Your task to perform on an android device: open app "Truecaller" (install if not already installed) and go to login screen Image 0: 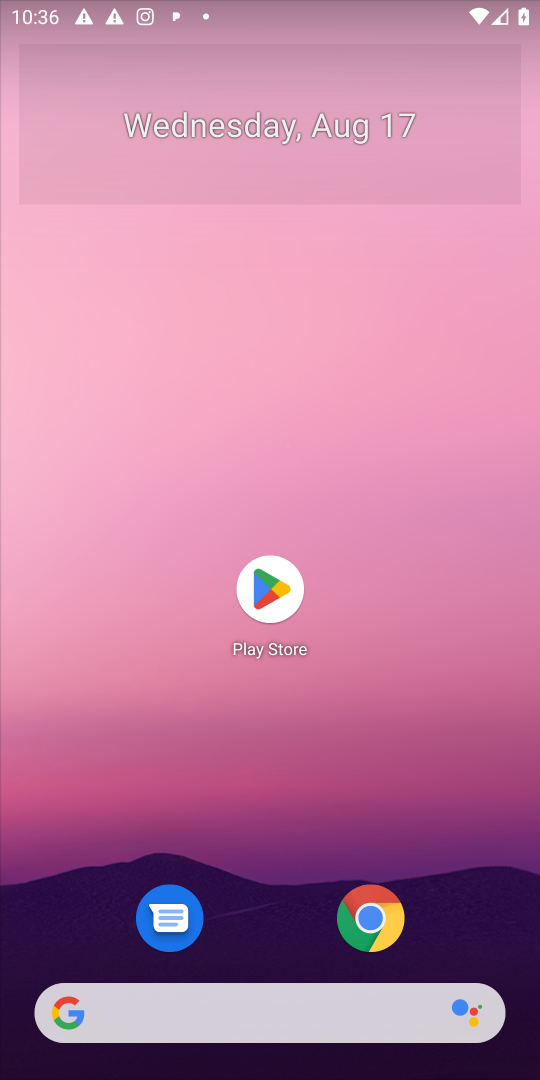
Step 0: click (275, 592)
Your task to perform on an android device: open app "Truecaller" (install if not already installed) and go to login screen Image 1: 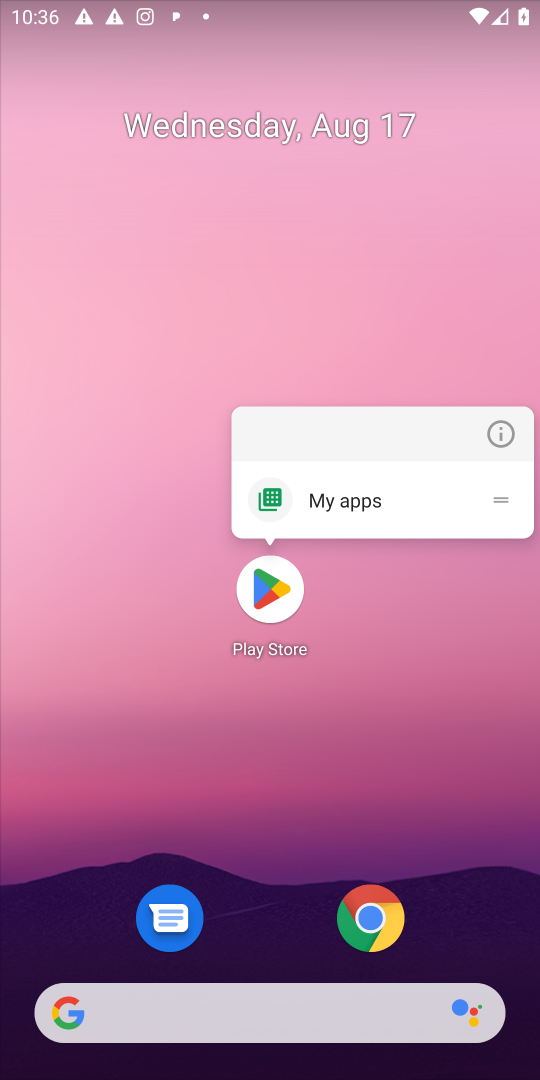
Step 1: click (275, 580)
Your task to perform on an android device: open app "Truecaller" (install if not already installed) and go to login screen Image 2: 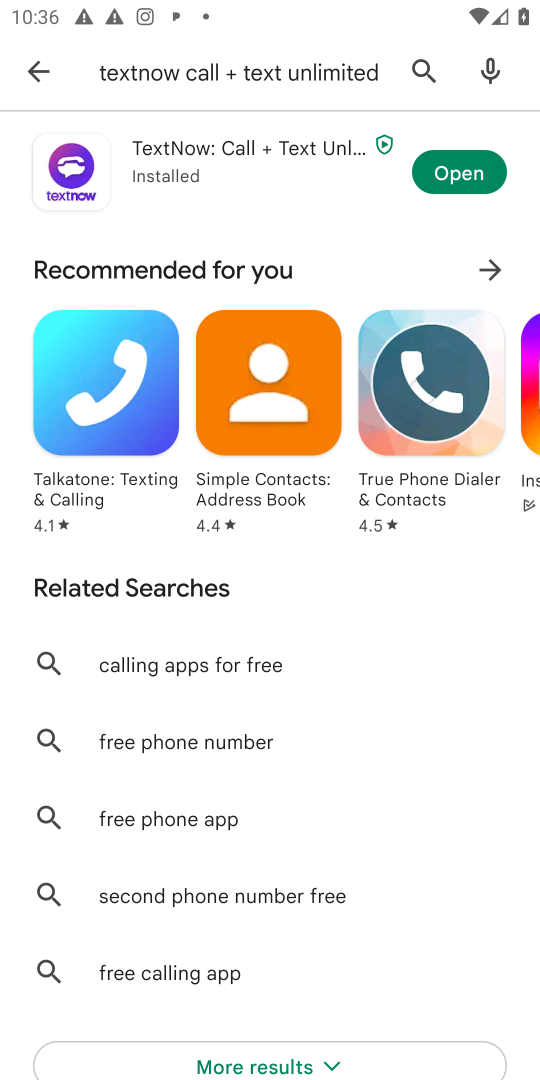
Step 2: click (414, 62)
Your task to perform on an android device: open app "Truecaller" (install if not already installed) and go to login screen Image 3: 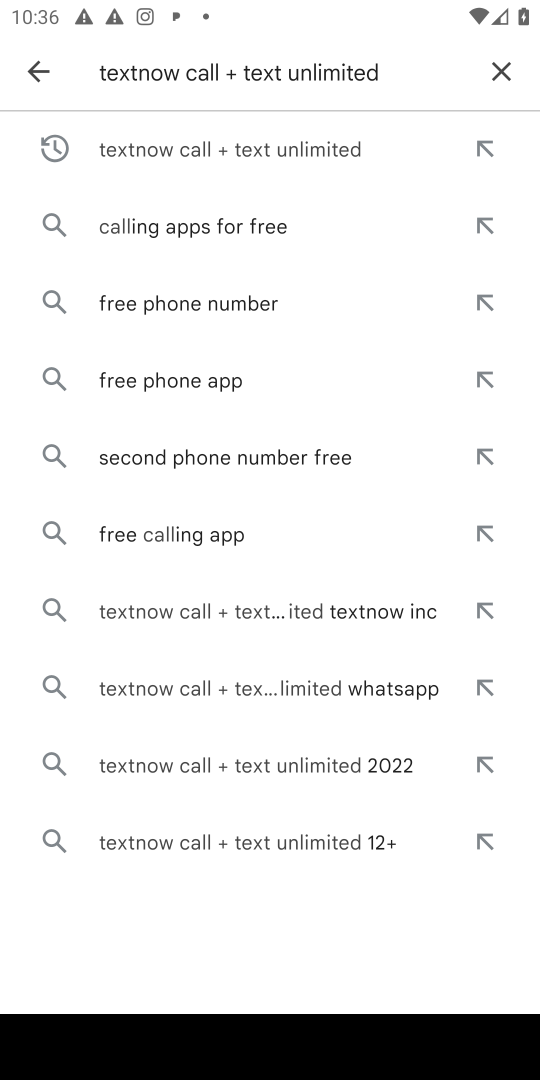
Step 3: click (506, 63)
Your task to perform on an android device: open app "Truecaller" (install if not already installed) and go to login screen Image 4: 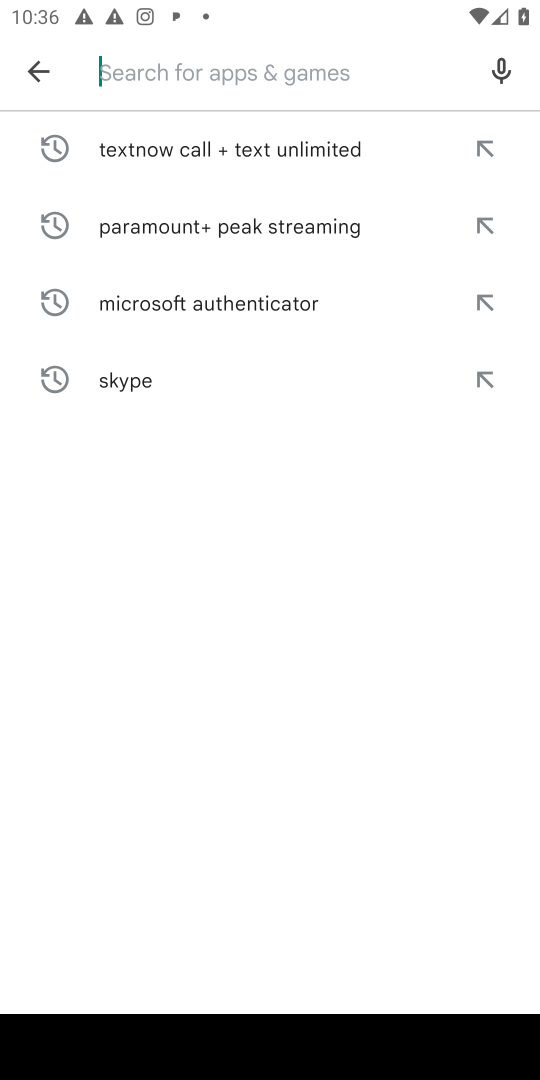
Step 4: type "Truecaller"
Your task to perform on an android device: open app "Truecaller" (install if not already installed) and go to login screen Image 5: 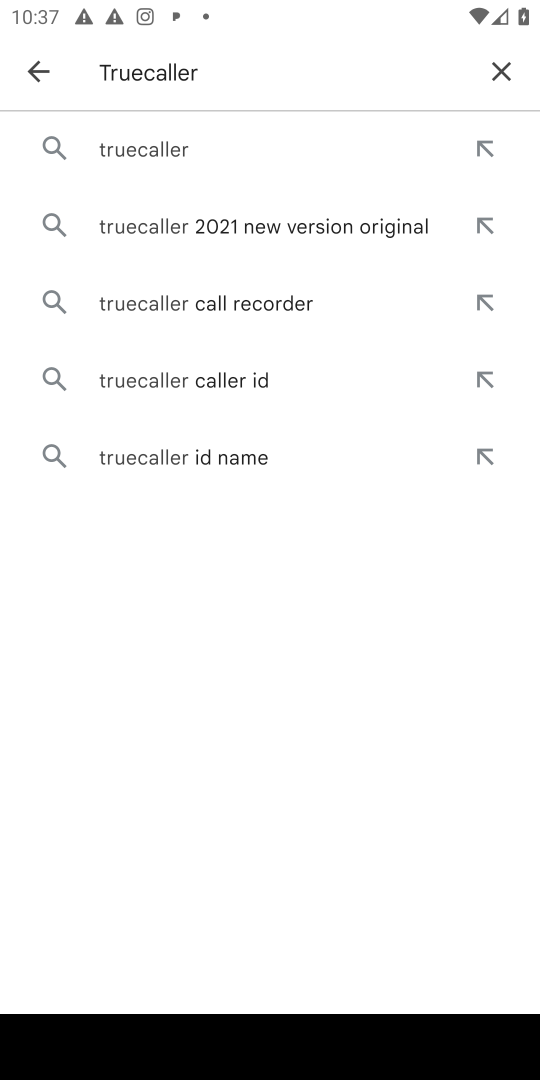
Step 5: click (169, 149)
Your task to perform on an android device: open app "Truecaller" (install if not already installed) and go to login screen Image 6: 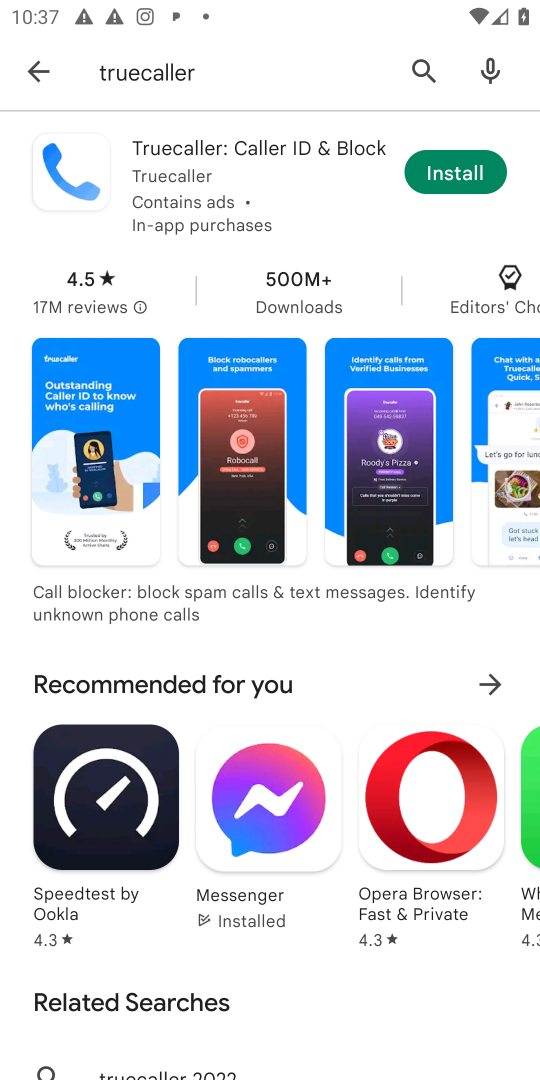
Step 6: click (466, 168)
Your task to perform on an android device: open app "Truecaller" (install if not already installed) and go to login screen Image 7: 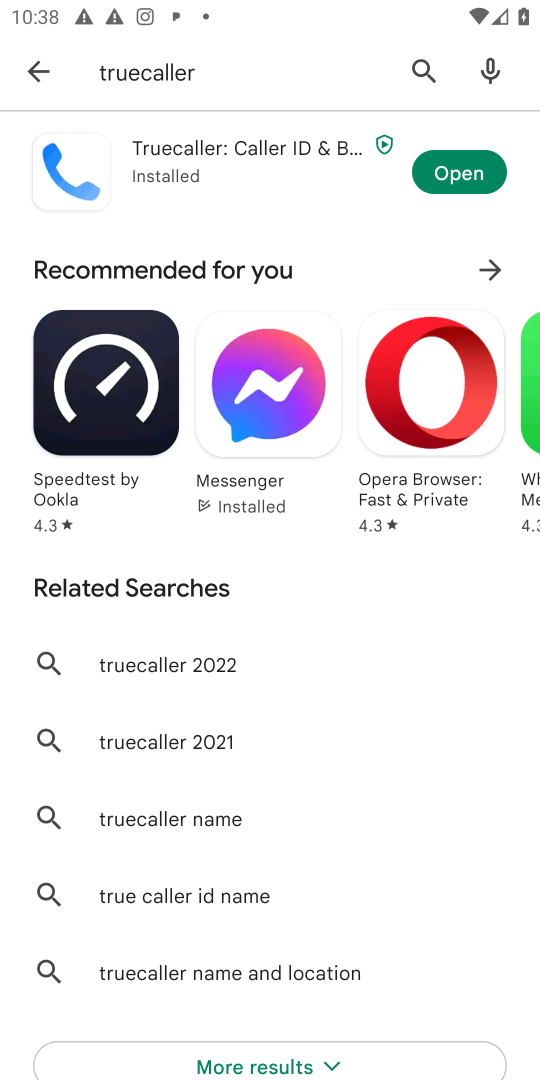
Step 7: click (456, 174)
Your task to perform on an android device: open app "Truecaller" (install if not already installed) and go to login screen Image 8: 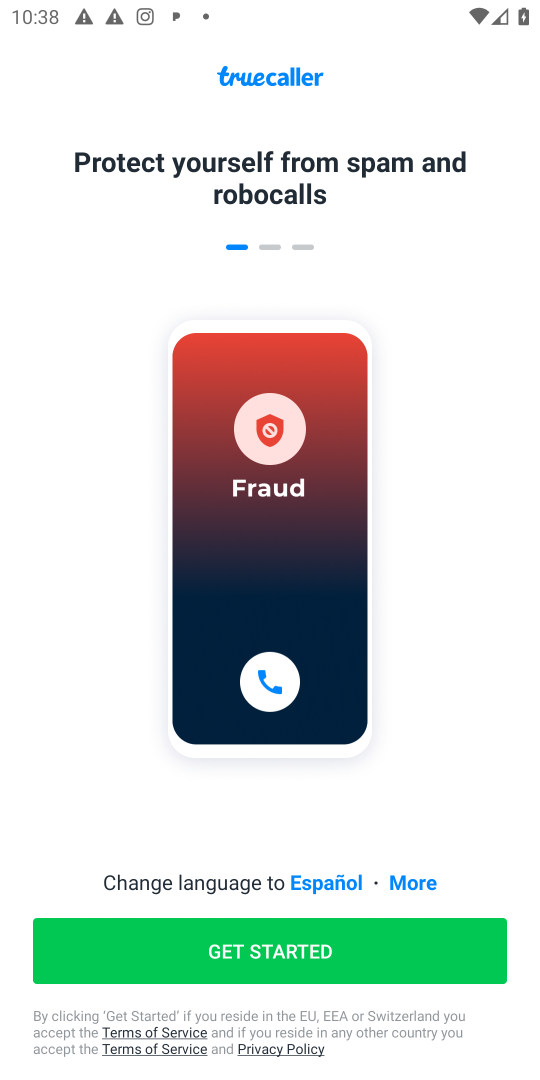
Step 8: click (235, 947)
Your task to perform on an android device: open app "Truecaller" (install if not already installed) and go to login screen Image 9: 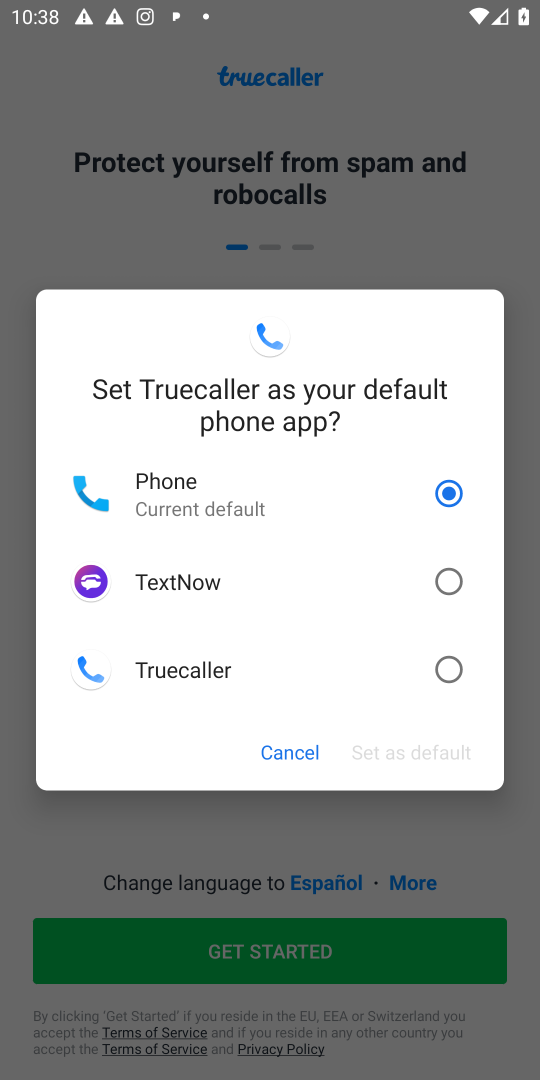
Step 9: task complete